Your task to perform on an android device: Show me the alarms in the clock app Image 0: 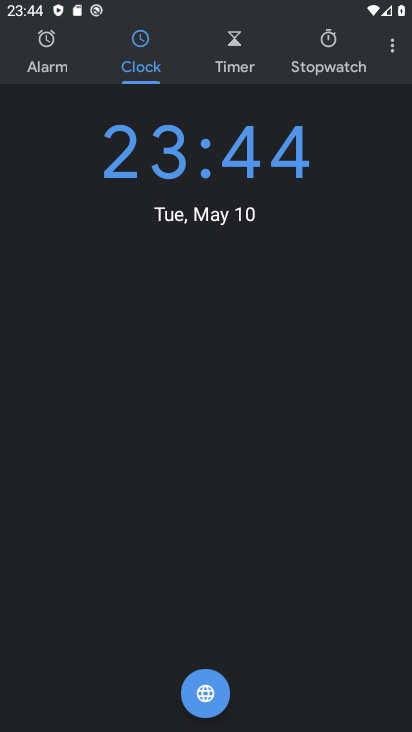
Step 0: click (50, 31)
Your task to perform on an android device: Show me the alarms in the clock app Image 1: 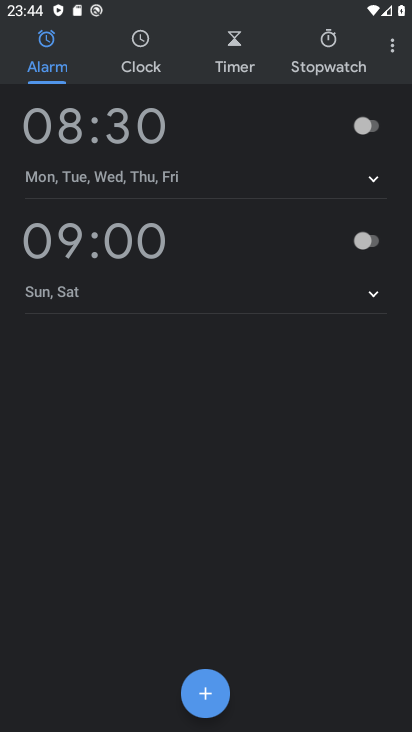
Step 1: task complete